Your task to perform on an android device: Open settings on Google Maps Image 0: 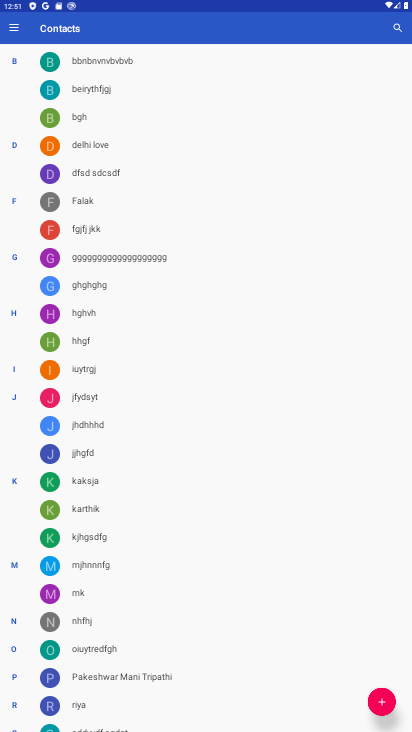
Step 0: press home button
Your task to perform on an android device: Open settings on Google Maps Image 1: 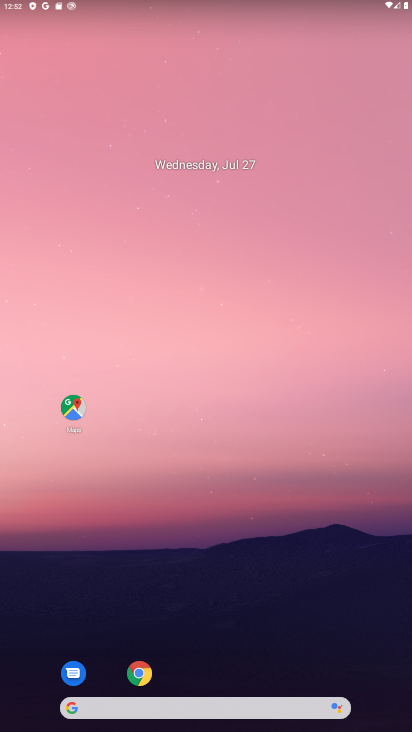
Step 1: click (75, 410)
Your task to perform on an android device: Open settings on Google Maps Image 2: 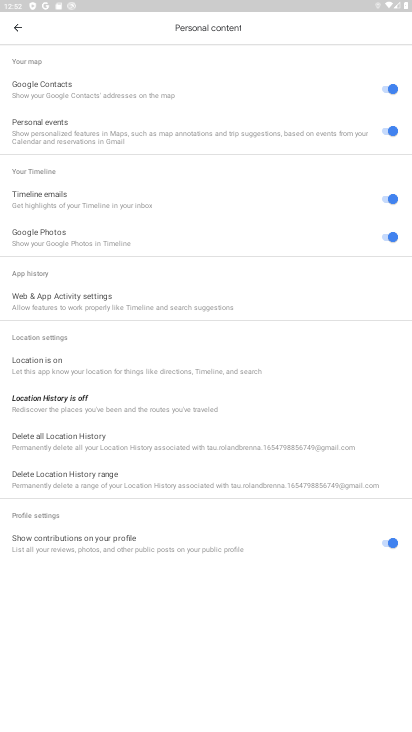
Step 2: click (18, 32)
Your task to perform on an android device: Open settings on Google Maps Image 3: 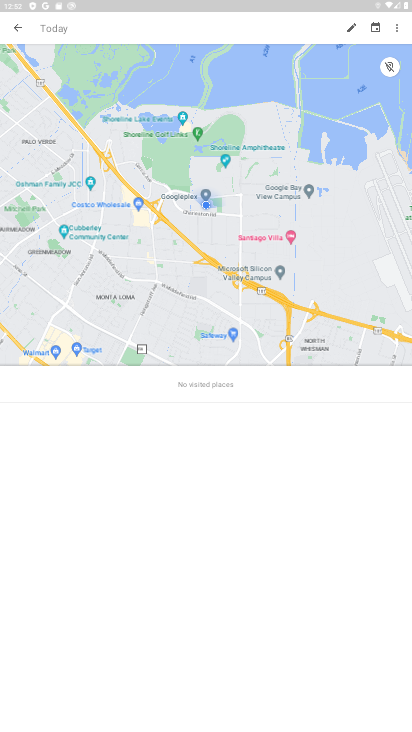
Step 3: click (15, 29)
Your task to perform on an android device: Open settings on Google Maps Image 4: 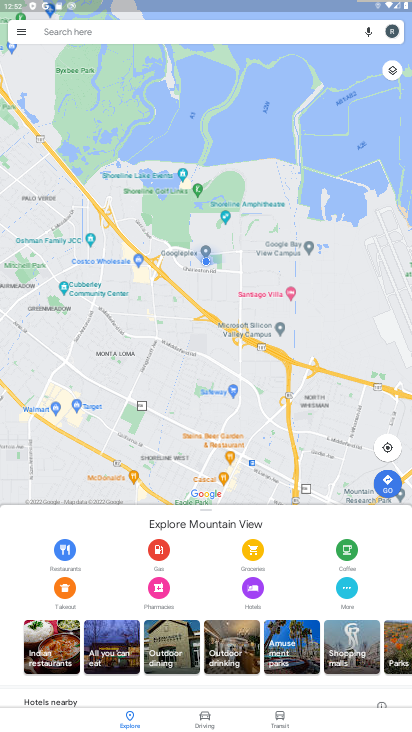
Step 4: click (20, 32)
Your task to perform on an android device: Open settings on Google Maps Image 5: 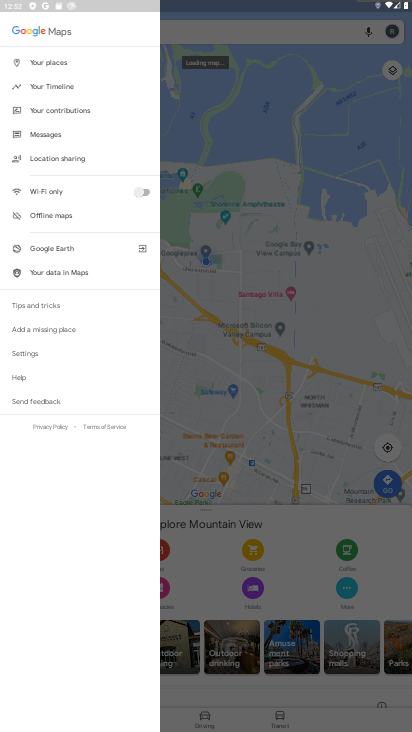
Step 5: click (32, 347)
Your task to perform on an android device: Open settings on Google Maps Image 6: 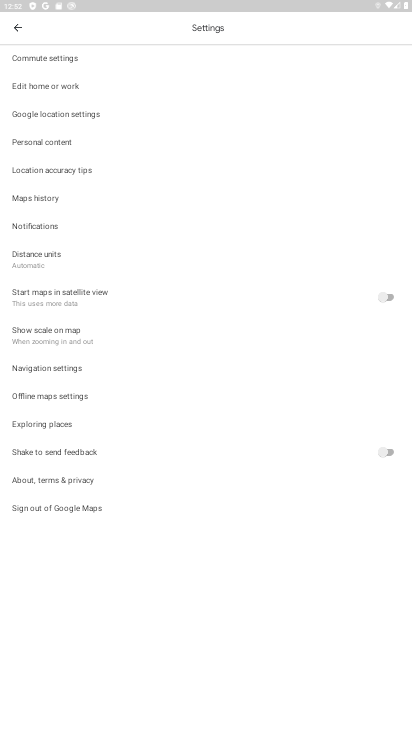
Step 6: task complete